Your task to perform on an android device: Open the Play Movies app and select the watchlist tab. Image 0: 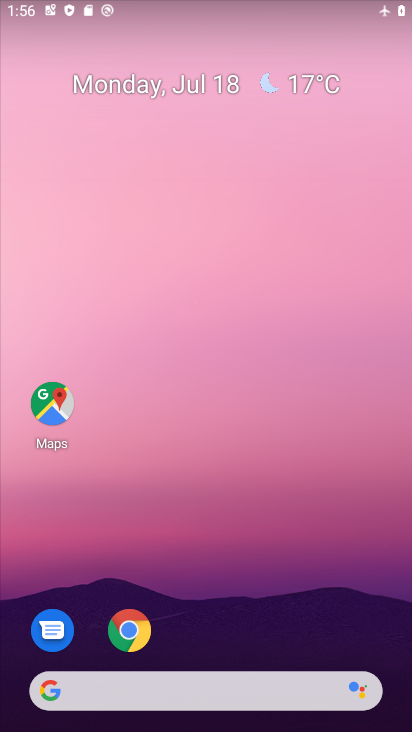
Step 0: drag from (209, 625) to (210, 50)
Your task to perform on an android device: Open the Play Movies app and select the watchlist tab. Image 1: 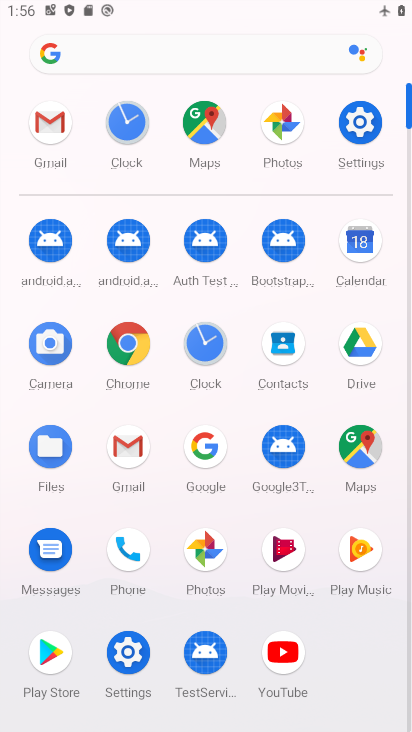
Step 1: click (289, 551)
Your task to perform on an android device: Open the Play Movies app and select the watchlist tab. Image 2: 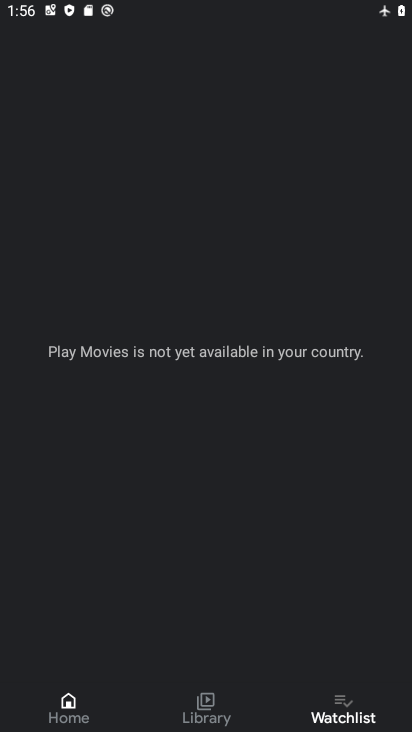
Step 2: task complete